Your task to perform on an android device: Go to Google Image 0: 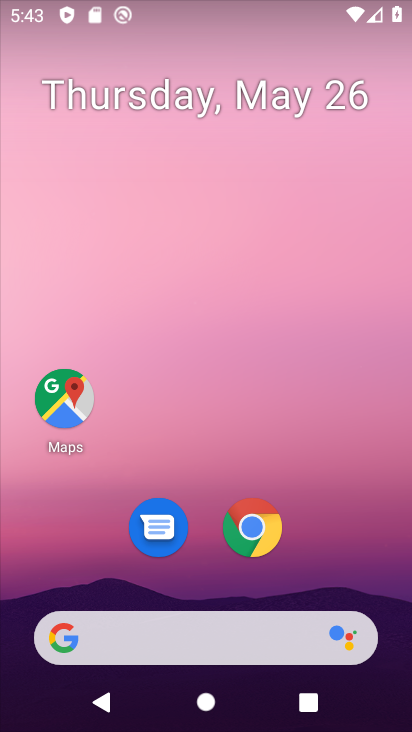
Step 0: drag from (137, 610) to (216, 103)
Your task to perform on an android device: Go to Google Image 1: 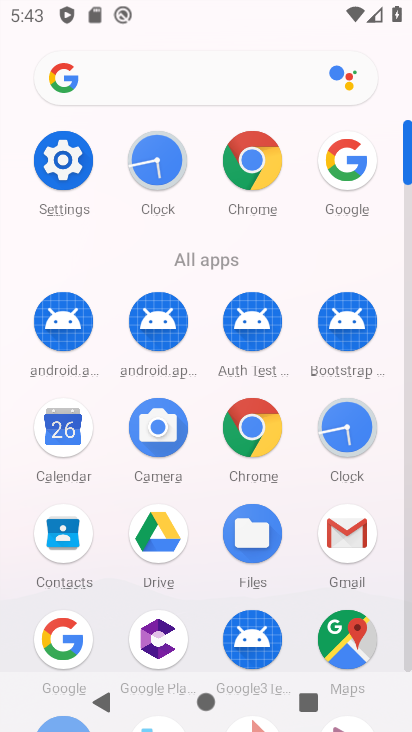
Step 1: click (54, 648)
Your task to perform on an android device: Go to Google Image 2: 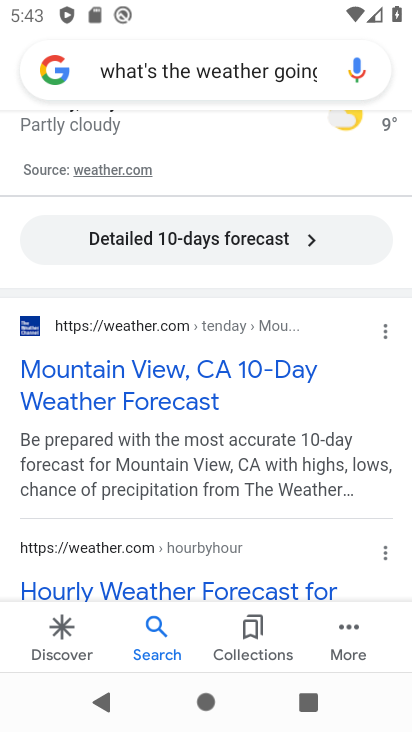
Step 2: click (226, 65)
Your task to perform on an android device: Go to Google Image 3: 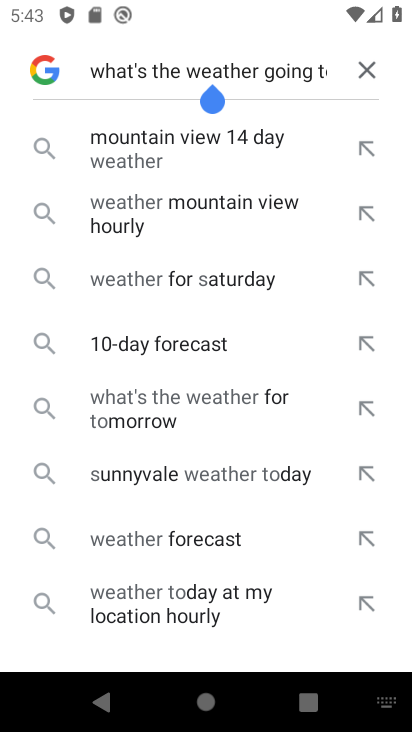
Step 3: click (359, 73)
Your task to perform on an android device: Go to Google Image 4: 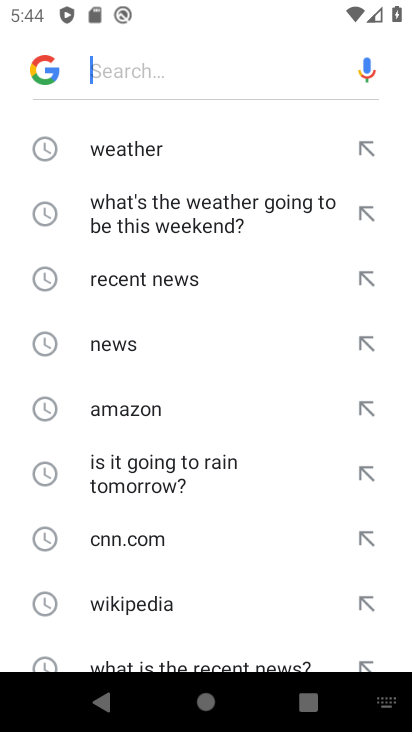
Step 4: task complete